Your task to perform on an android device: Search for "macbook air" on walmart.com, select the first entry, and add it to the cart. Image 0: 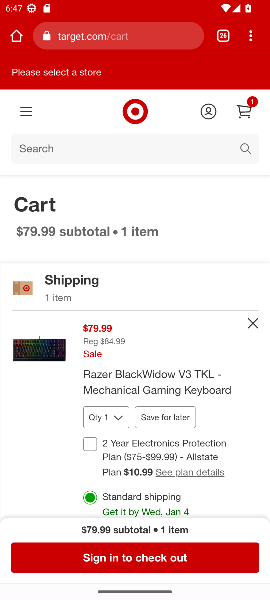
Step 0: press home button
Your task to perform on an android device: Search for "macbook air" on walmart.com, select the first entry, and add it to the cart. Image 1: 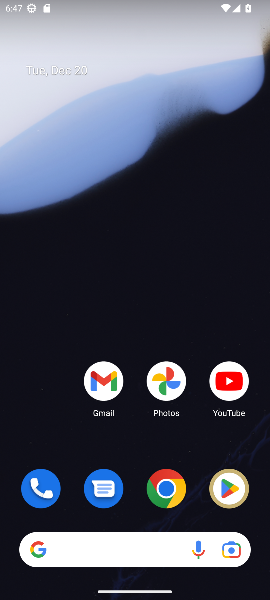
Step 1: drag from (52, 434) to (55, 28)
Your task to perform on an android device: Search for "macbook air" on walmart.com, select the first entry, and add it to the cart. Image 2: 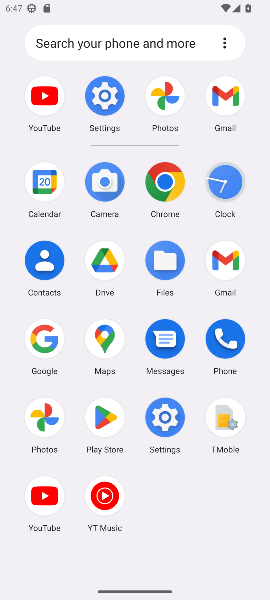
Step 2: click (40, 338)
Your task to perform on an android device: Search for "macbook air" on walmart.com, select the first entry, and add it to the cart. Image 3: 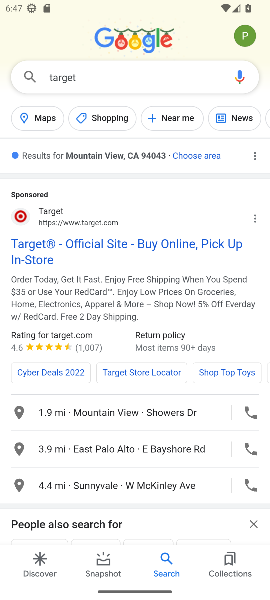
Step 3: click (115, 244)
Your task to perform on an android device: Search for "macbook air" on walmart.com, select the first entry, and add it to the cart. Image 4: 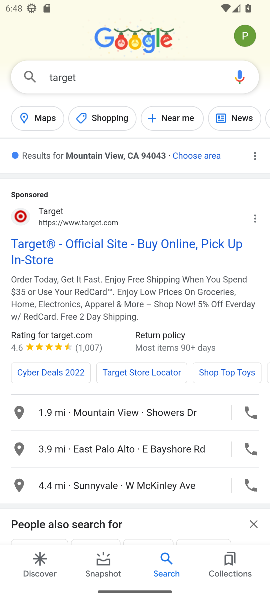
Step 4: click (116, 79)
Your task to perform on an android device: Search for "macbook air" on walmart.com, select the first entry, and add it to the cart. Image 5: 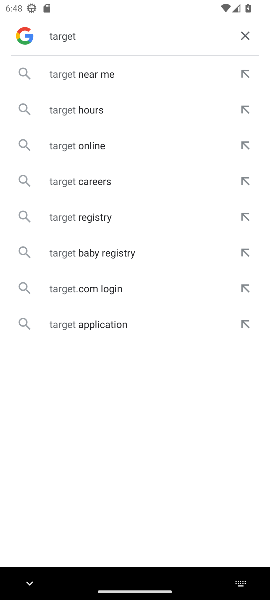
Step 5: click (244, 33)
Your task to perform on an android device: Search for "macbook air" on walmart.com, select the first entry, and add it to the cart. Image 6: 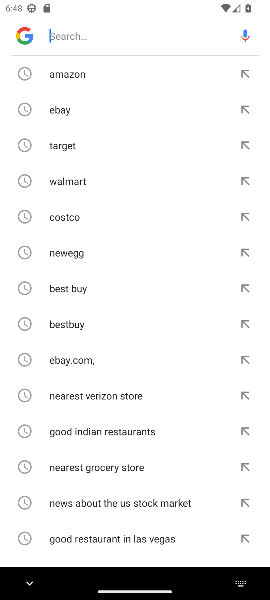
Step 6: type "walmart.com"
Your task to perform on an android device: Search for "macbook air" on walmart.com, select the first entry, and add it to the cart. Image 7: 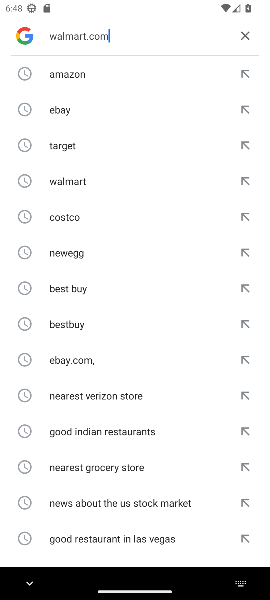
Step 7: press enter
Your task to perform on an android device: Search for "macbook air" on walmart.com, select the first entry, and add it to the cart. Image 8: 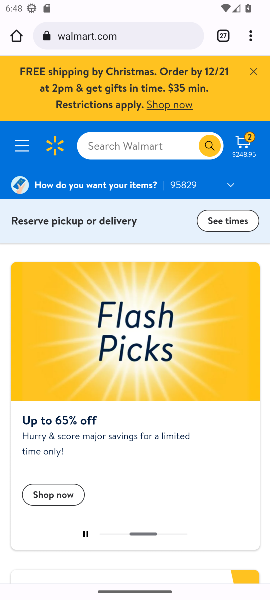
Step 8: click (120, 146)
Your task to perform on an android device: Search for "macbook air" on walmart.com, select the first entry, and add it to the cart. Image 9: 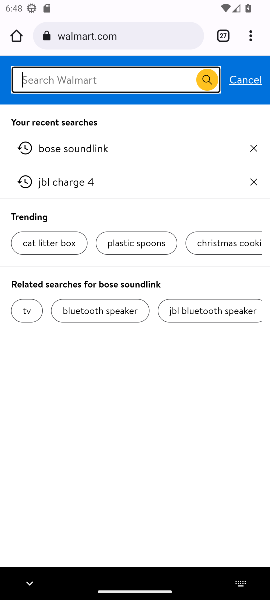
Step 9: type "macbook air"
Your task to perform on an android device: Search for "macbook air" on walmart.com, select the first entry, and add it to the cart. Image 10: 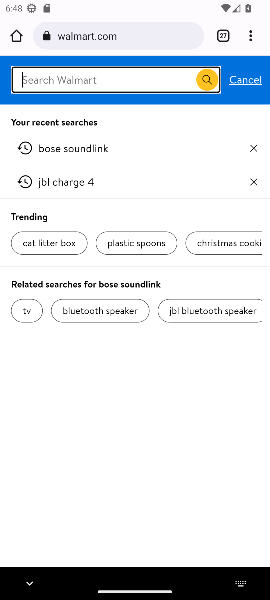
Step 10: press enter
Your task to perform on an android device: Search for "macbook air" on walmart.com, select the first entry, and add it to the cart. Image 11: 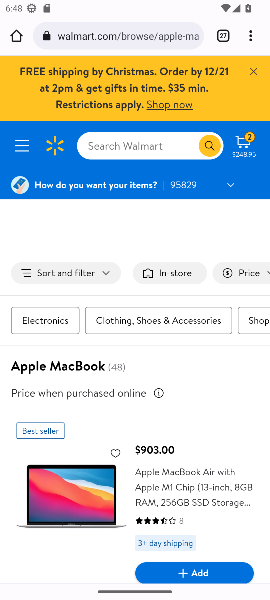
Step 11: drag from (195, 521) to (181, 243)
Your task to perform on an android device: Search for "macbook air" on walmart.com, select the first entry, and add it to the cart. Image 12: 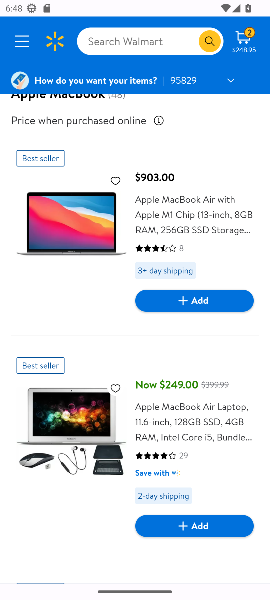
Step 12: click (191, 301)
Your task to perform on an android device: Search for "macbook air" on walmart.com, select the first entry, and add it to the cart. Image 13: 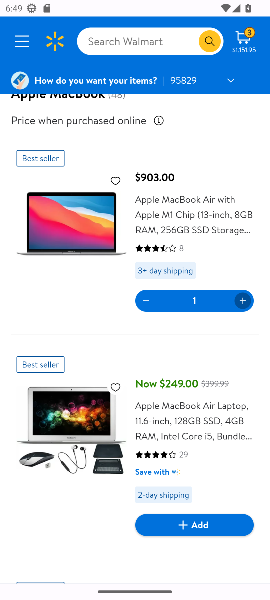
Step 13: task complete